Your task to perform on an android device: When is my next meeting? Image 0: 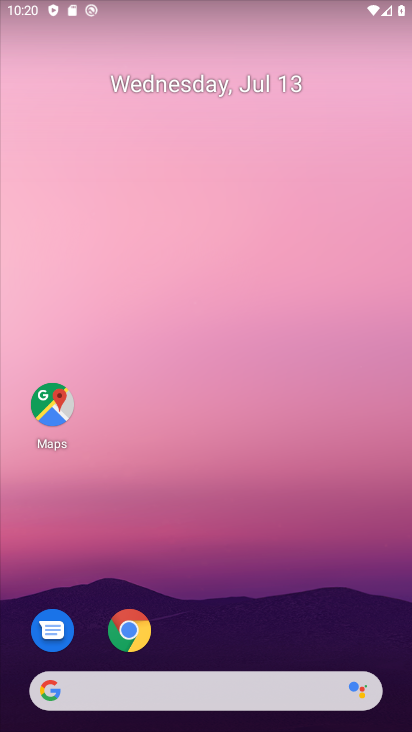
Step 0: drag from (221, 586) to (237, 21)
Your task to perform on an android device: When is my next meeting? Image 1: 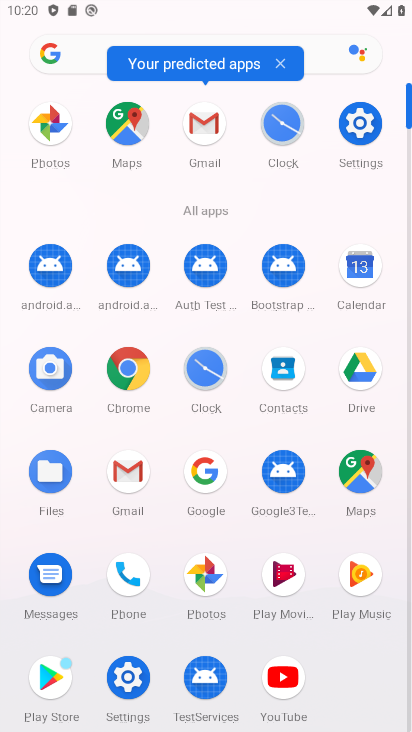
Step 1: click (366, 274)
Your task to perform on an android device: When is my next meeting? Image 2: 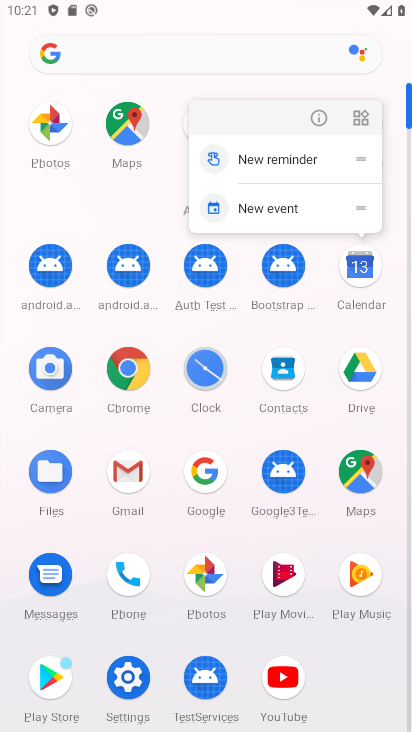
Step 2: click (366, 274)
Your task to perform on an android device: When is my next meeting? Image 3: 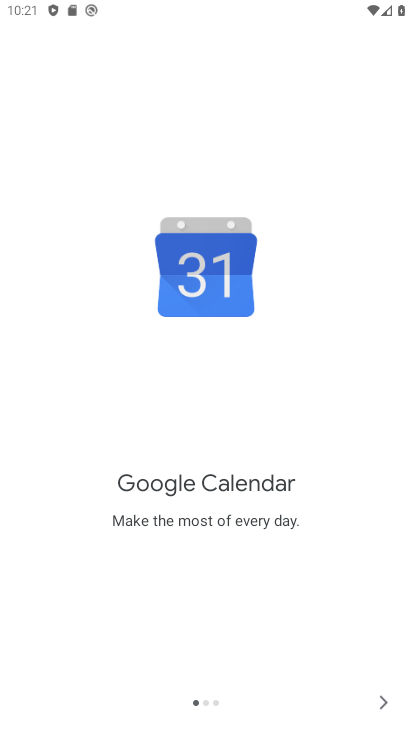
Step 3: click (382, 699)
Your task to perform on an android device: When is my next meeting? Image 4: 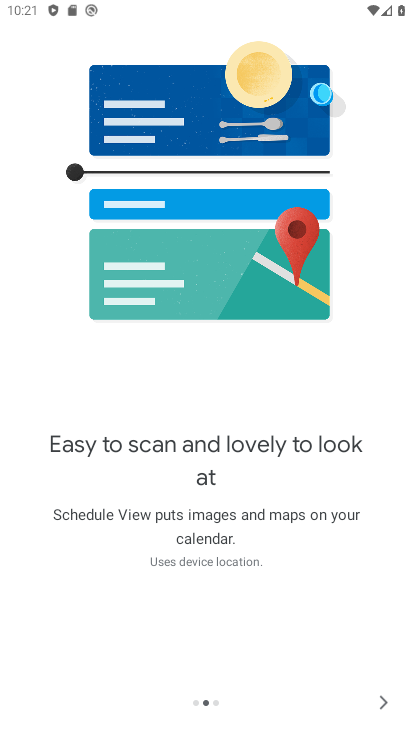
Step 4: click (382, 699)
Your task to perform on an android device: When is my next meeting? Image 5: 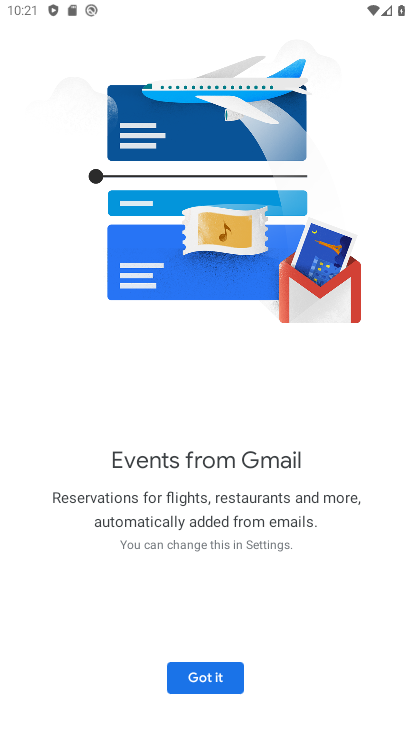
Step 5: click (211, 671)
Your task to perform on an android device: When is my next meeting? Image 6: 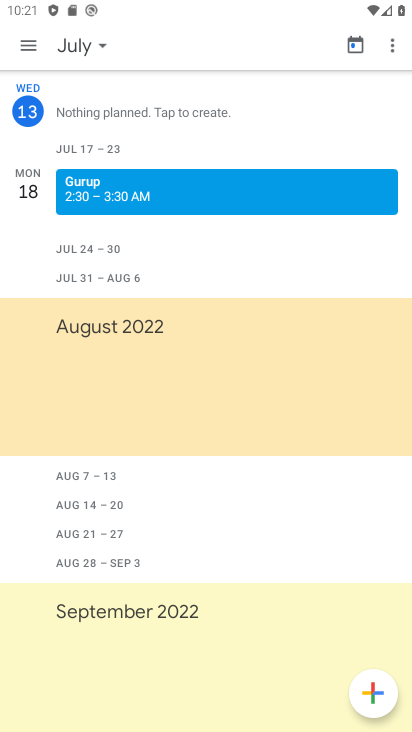
Step 6: task complete